Your task to perform on an android device: Go to Yahoo.com Image 0: 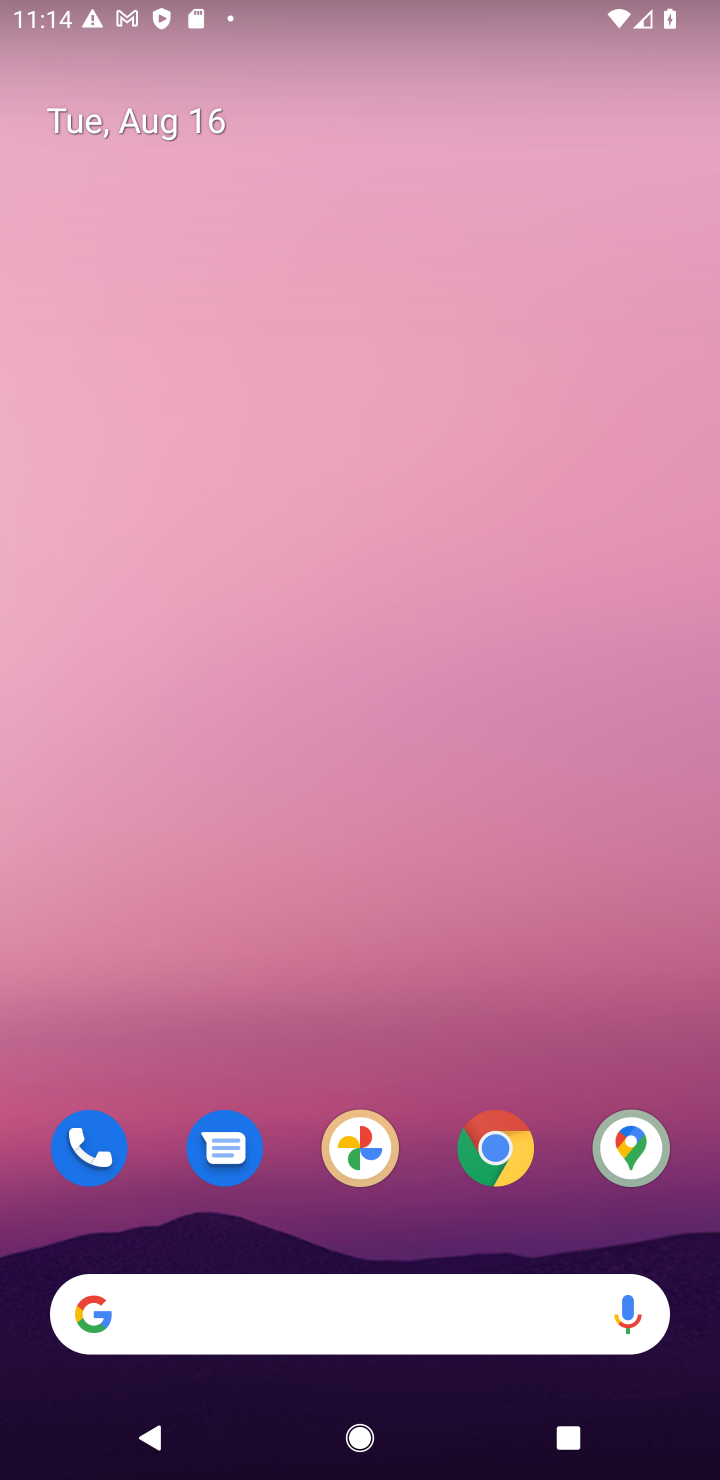
Step 0: drag from (263, 1202) to (319, 272)
Your task to perform on an android device: Go to Yahoo.com Image 1: 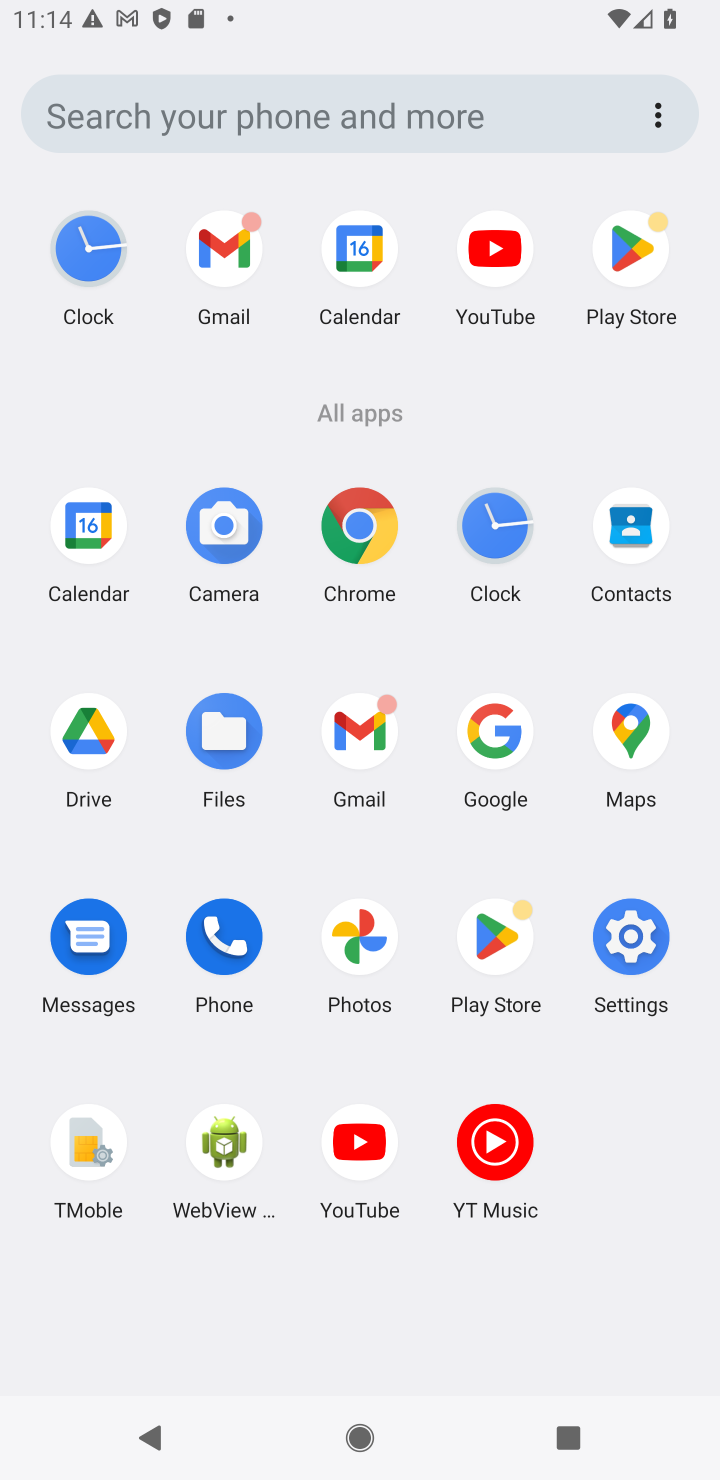
Step 1: click (373, 538)
Your task to perform on an android device: Go to Yahoo.com Image 2: 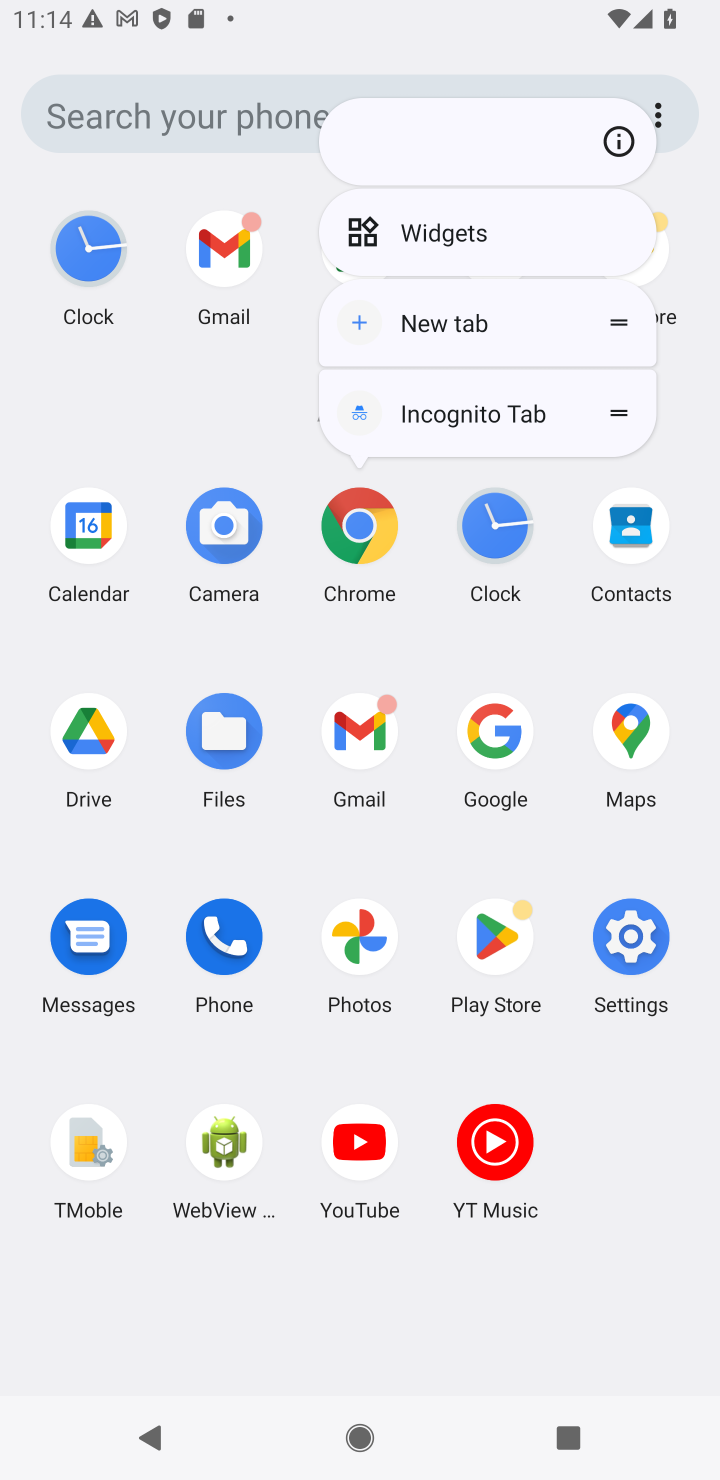
Step 2: click (359, 510)
Your task to perform on an android device: Go to Yahoo.com Image 3: 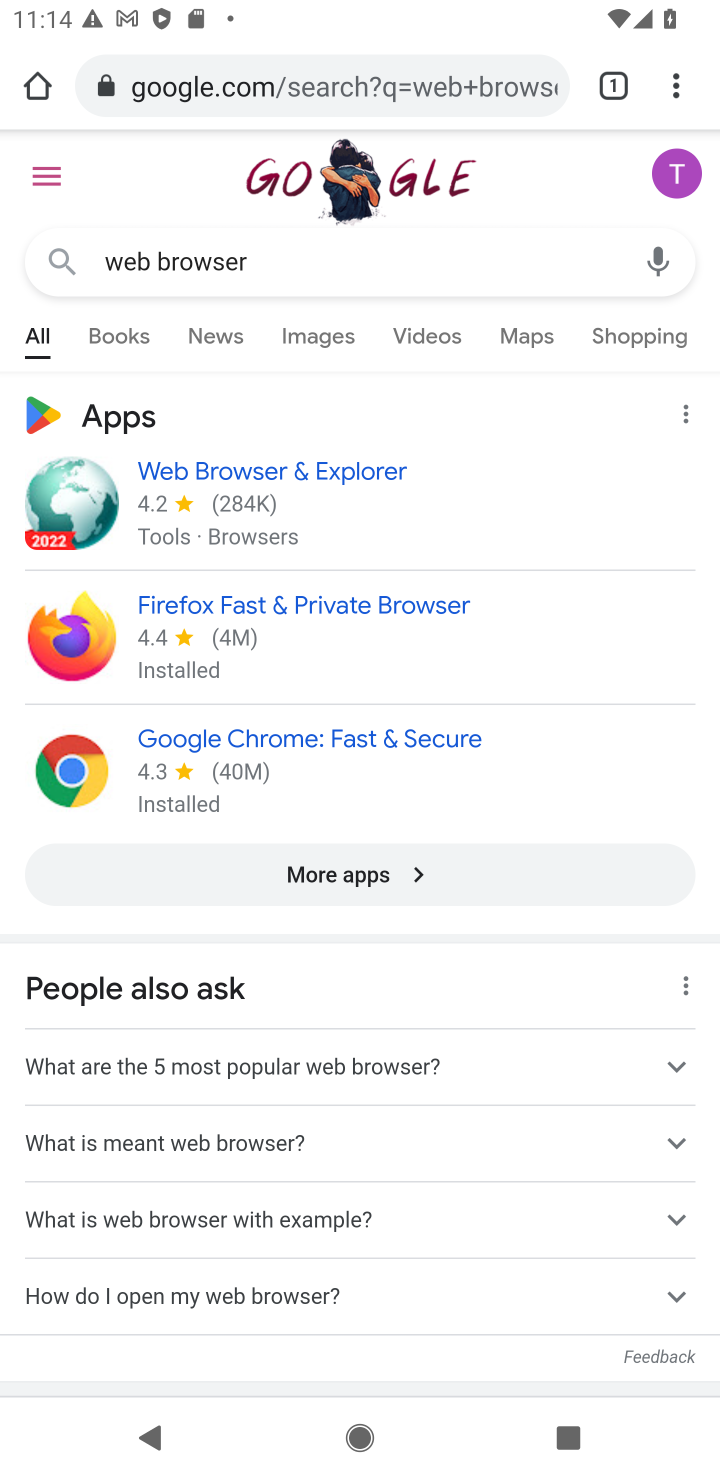
Step 3: click (217, 97)
Your task to perform on an android device: Go to Yahoo.com Image 4: 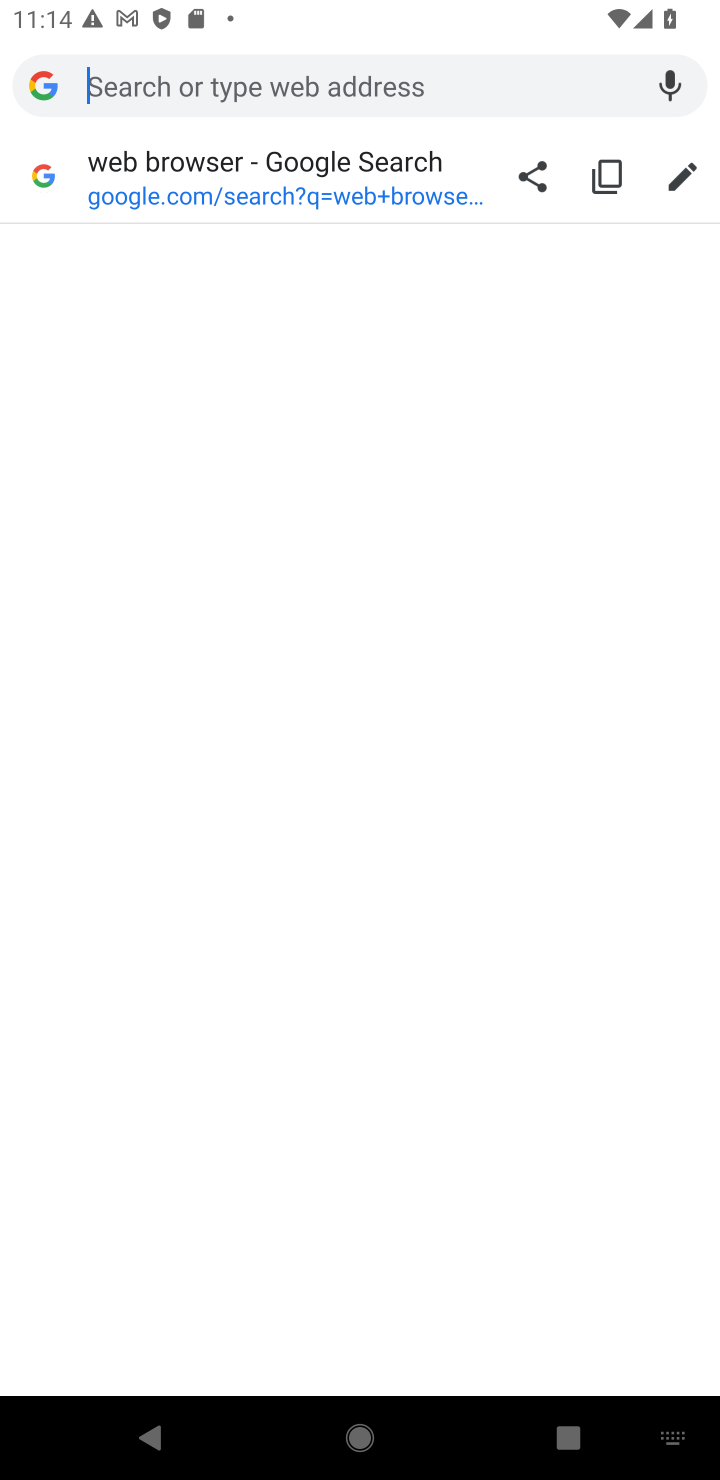
Step 4: drag from (719, 1478) to (715, 1392)
Your task to perform on an android device: Go to Yahoo.com Image 5: 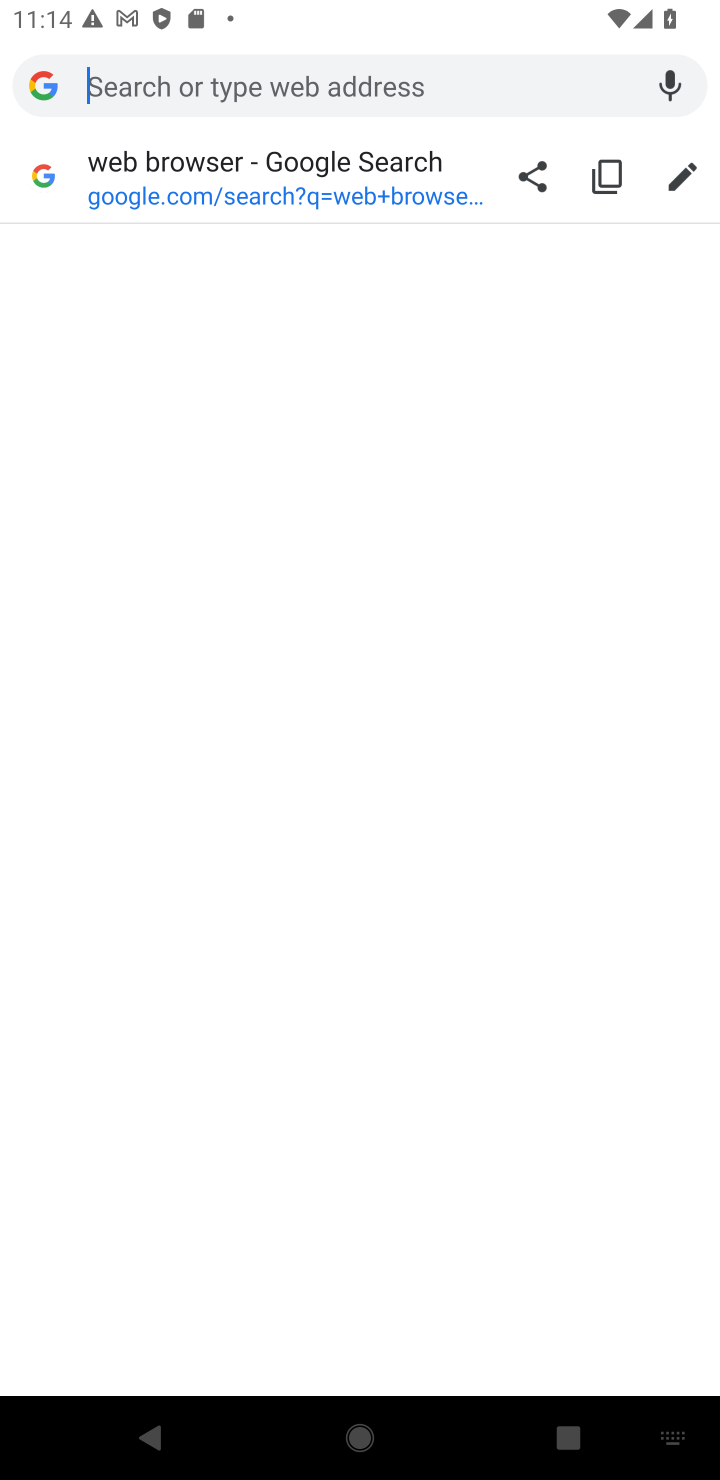
Step 5: type " Yahoo.com"
Your task to perform on an android device: Go to Yahoo.com Image 6: 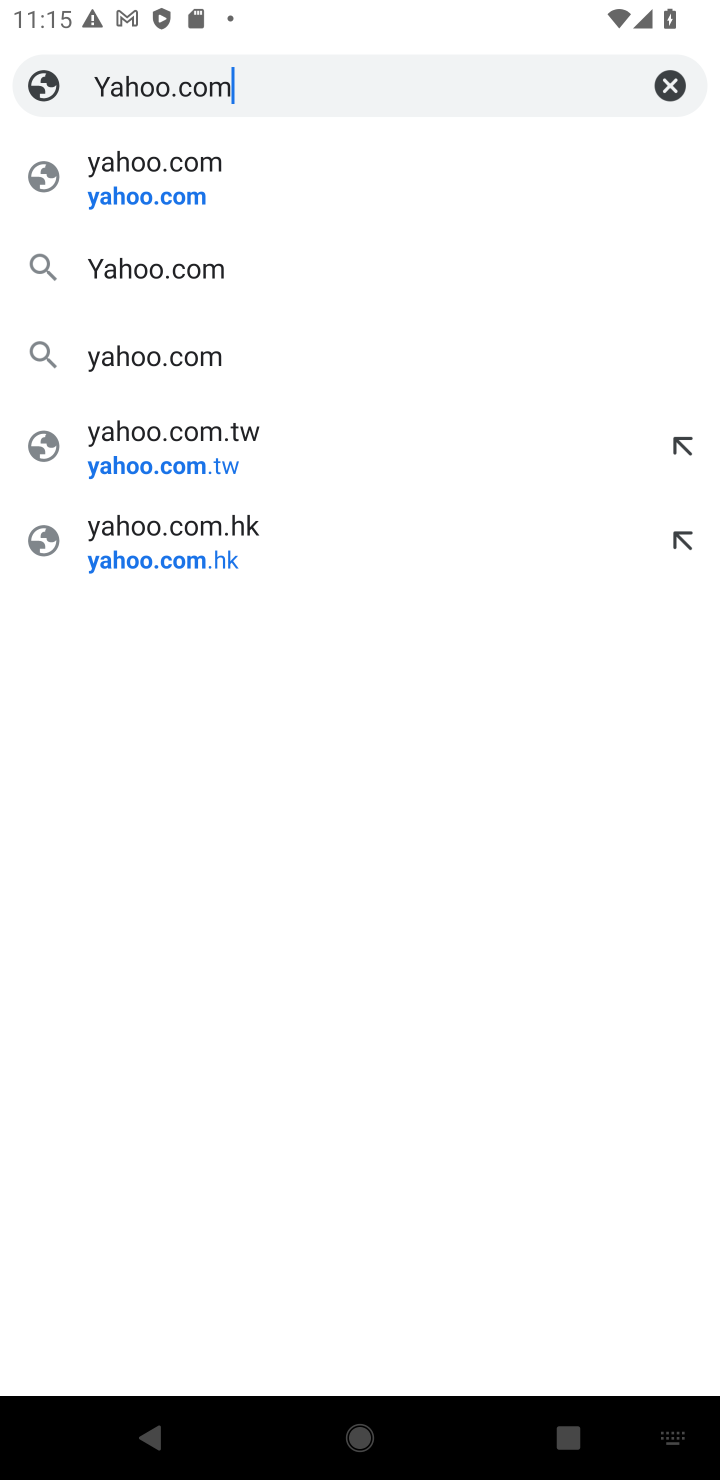
Step 6: click (127, 184)
Your task to perform on an android device: Go to Yahoo.com Image 7: 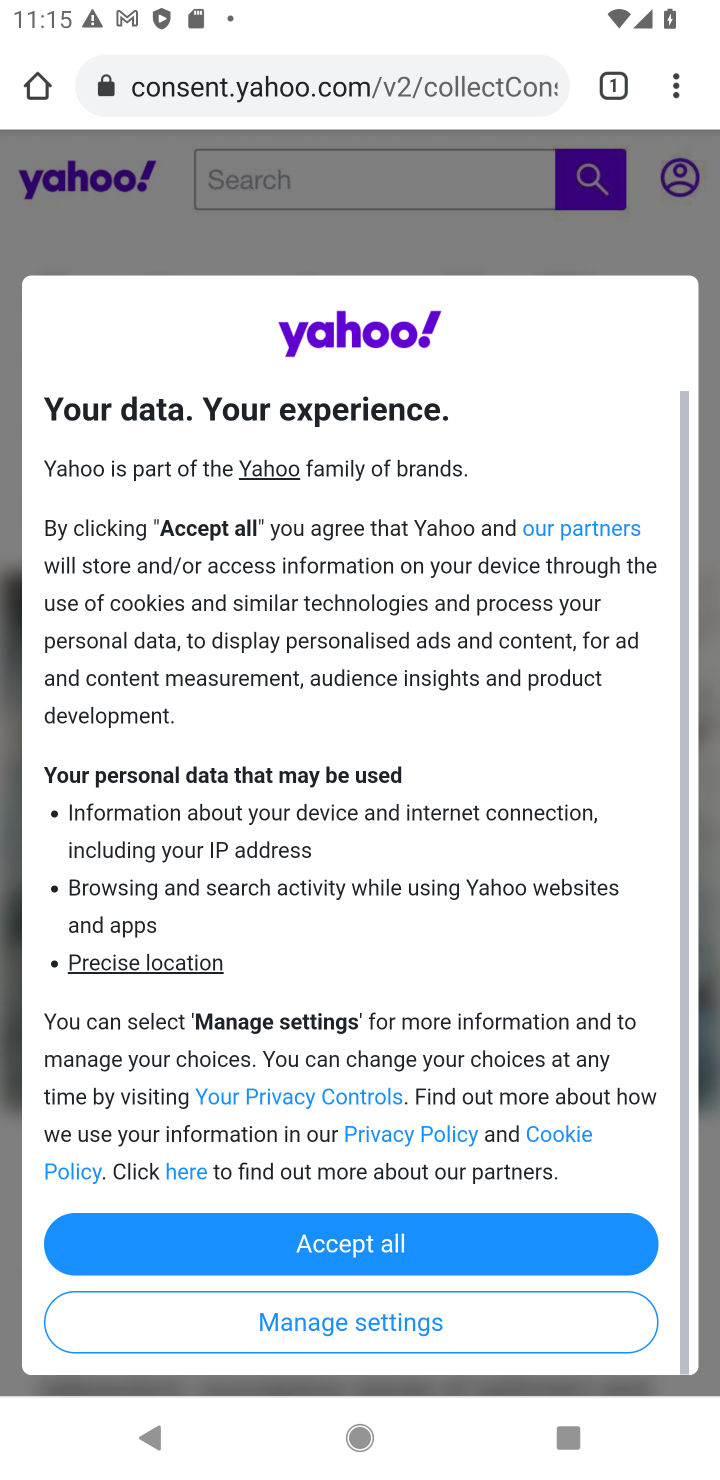
Step 7: click (422, 1238)
Your task to perform on an android device: Go to Yahoo.com Image 8: 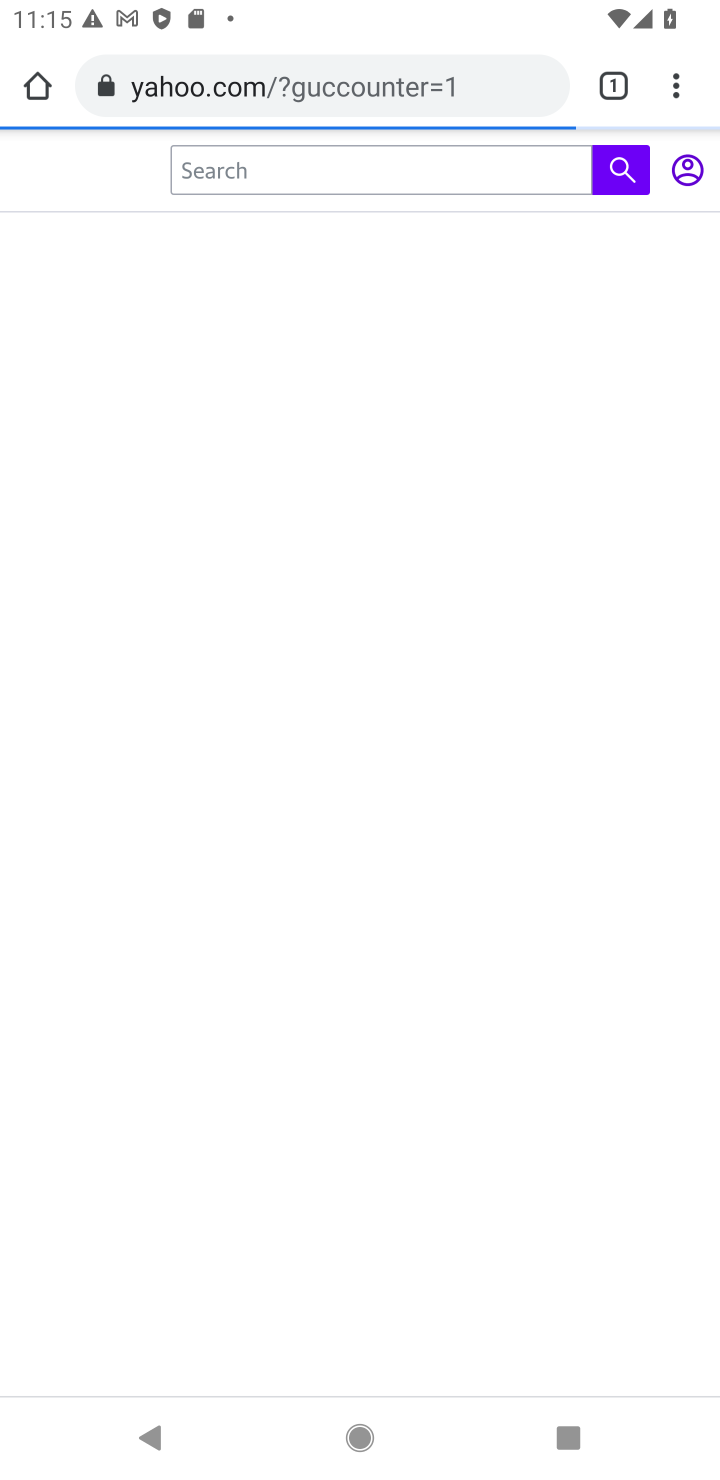
Step 8: click (423, 1233)
Your task to perform on an android device: Go to Yahoo.com Image 9: 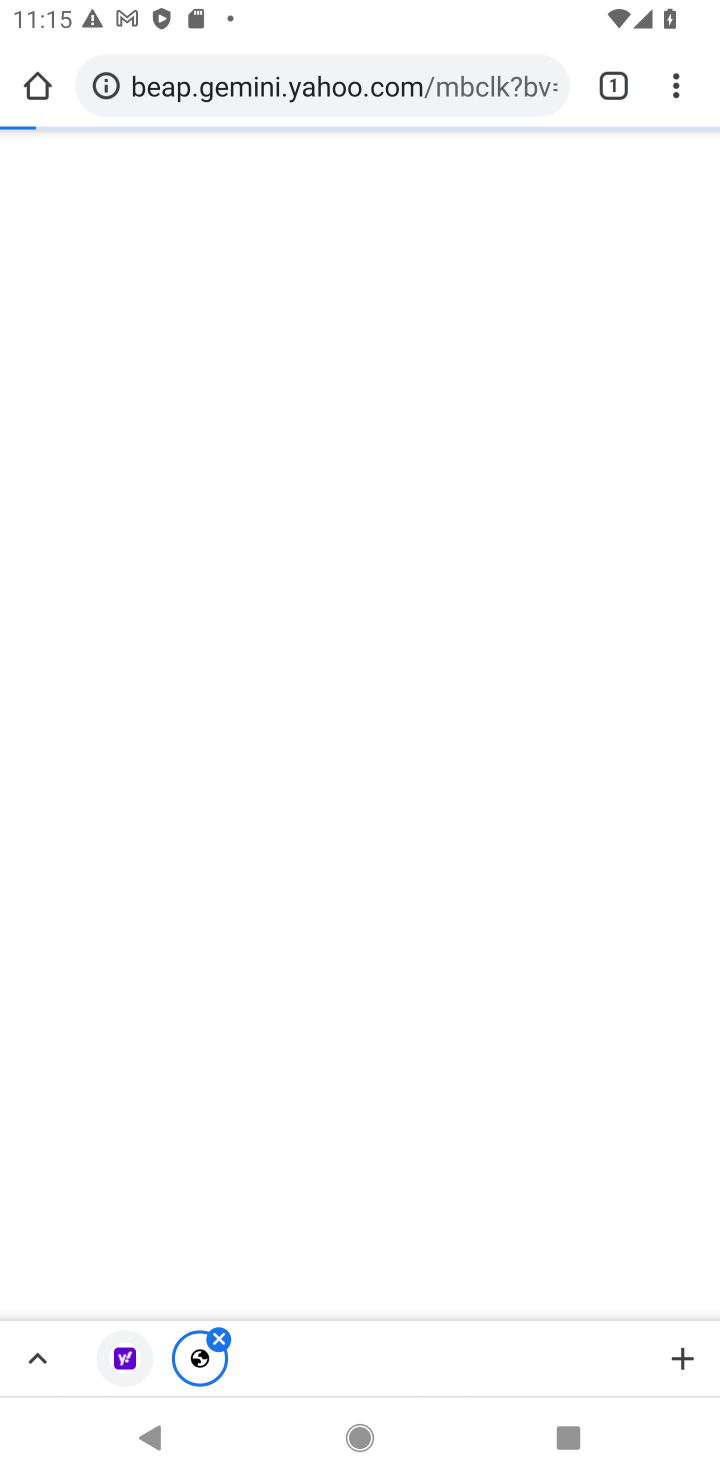
Step 9: task complete